Your task to perform on an android device: Go to Yahoo.com Image 0: 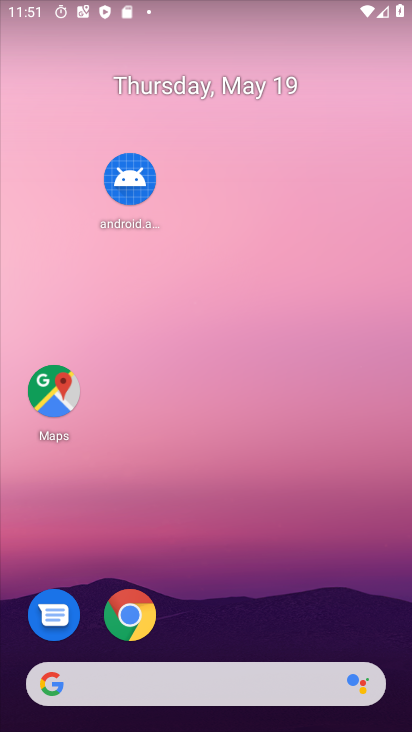
Step 0: click (139, 604)
Your task to perform on an android device: Go to Yahoo.com Image 1: 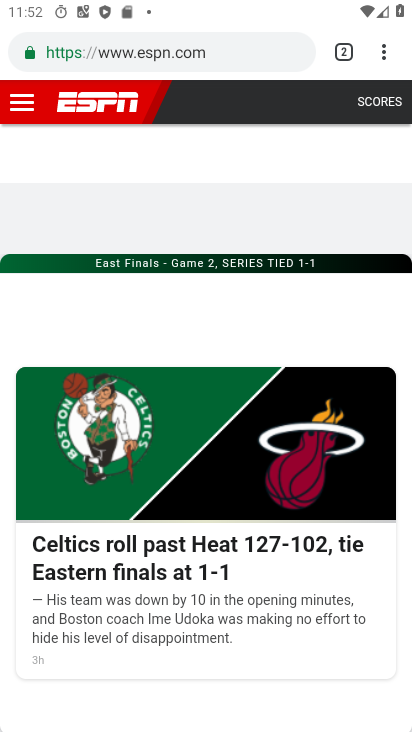
Step 1: click (338, 44)
Your task to perform on an android device: Go to Yahoo.com Image 2: 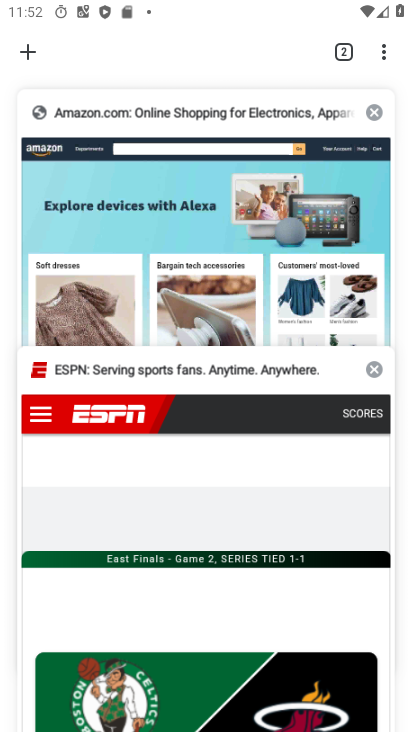
Step 2: click (371, 112)
Your task to perform on an android device: Go to Yahoo.com Image 3: 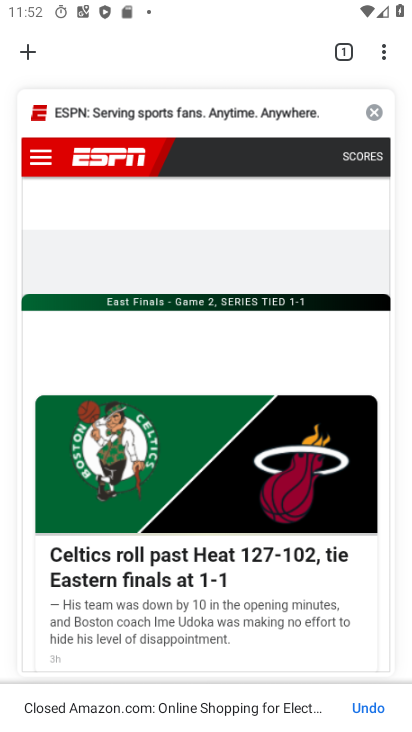
Step 3: click (370, 113)
Your task to perform on an android device: Go to Yahoo.com Image 4: 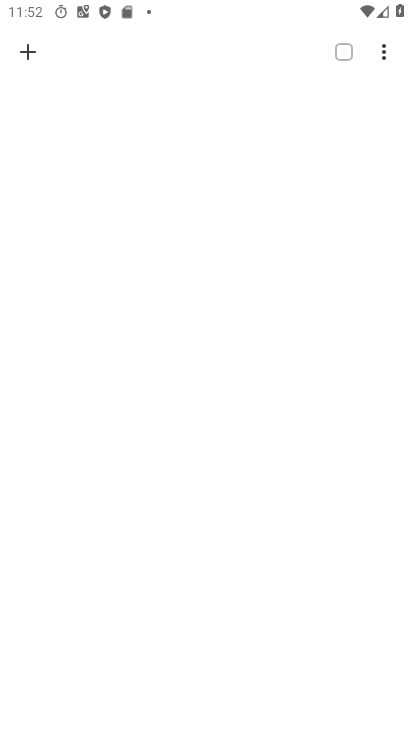
Step 4: click (30, 50)
Your task to perform on an android device: Go to Yahoo.com Image 5: 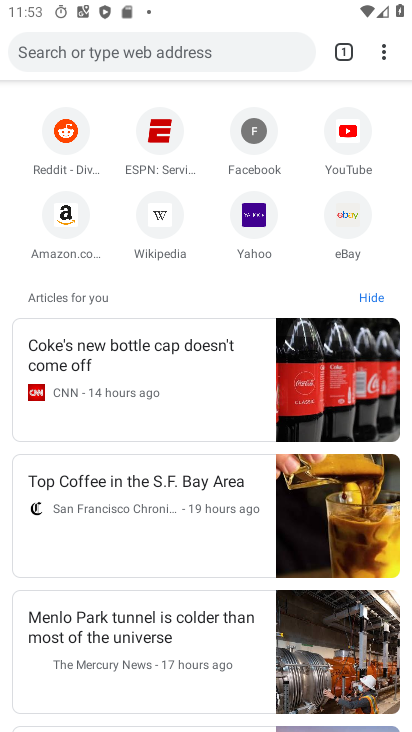
Step 5: click (245, 216)
Your task to perform on an android device: Go to Yahoo.com Image 6: 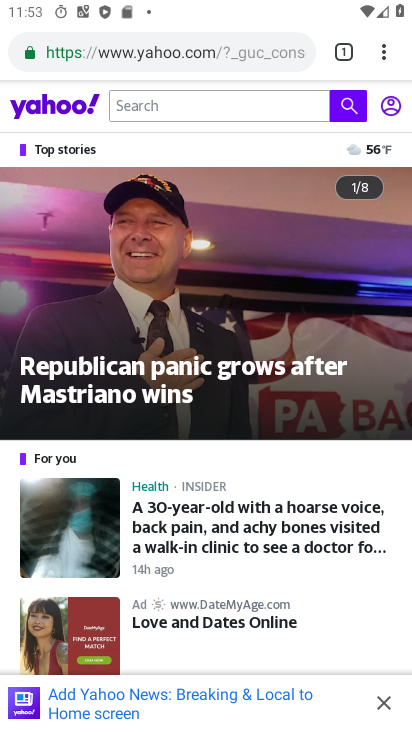
Step 6: task complete